Your task to perform on an android device: toggle show notifications on the lock screen Image 0: 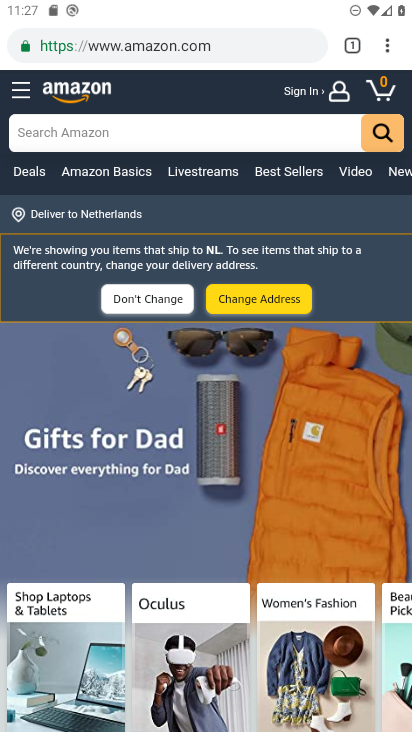
Step 0: press home button
Your task to perform on an android device: toggle show notifications on the lock screen Image 1: 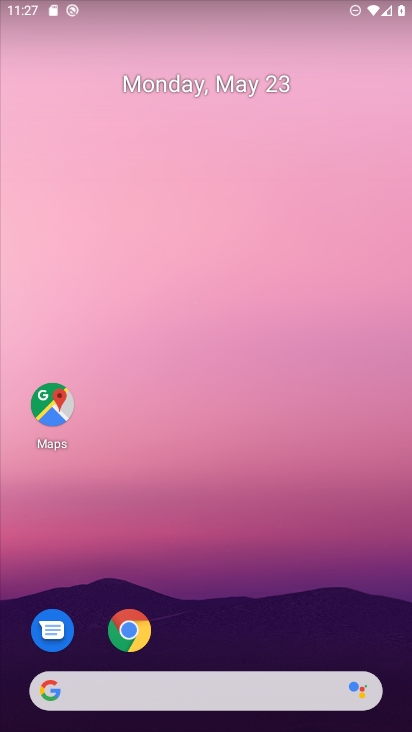
Step 1: drag from (172, 647) to (281, 113)
Your task to perform on an android device: toggle show notifications on the lock screen Image 2: 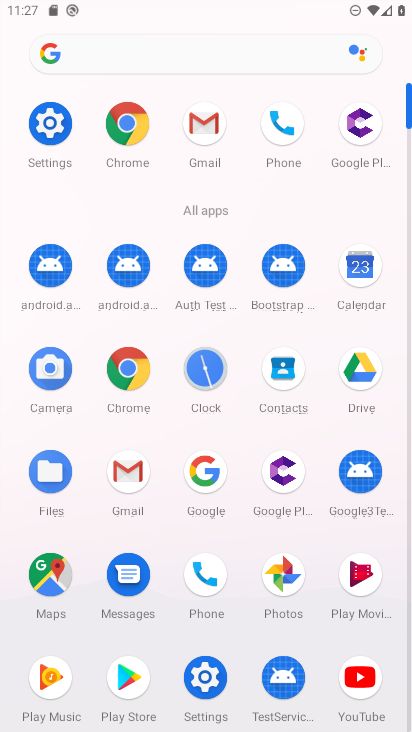
Step 2: click (50, 121)
Your task to perform on an android device: toggle show notifications on the lock screen Image 3: 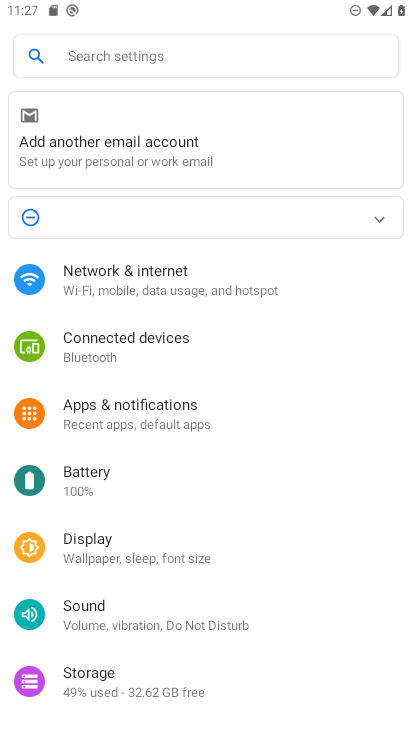
Step 3: click (133, 426)
Your task to perform on an android device: toggle show notifications on the lock screen Image 4: 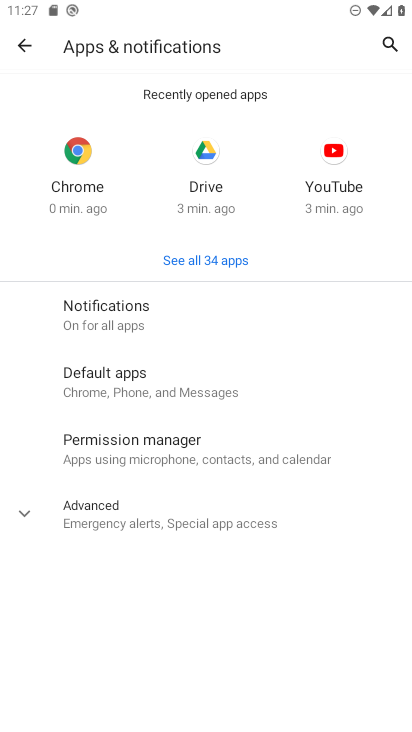
Step 4: click (120, 308)
Your task to perform on an android device: toggle show notifications on the lock screen Image 5: 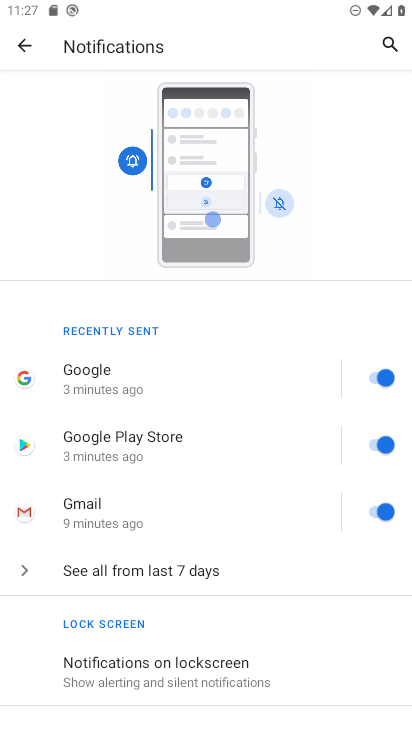
Step 5: click (133, 667)
Your task to perform on an android device: toggle show notifications on the lock screen Image 6: 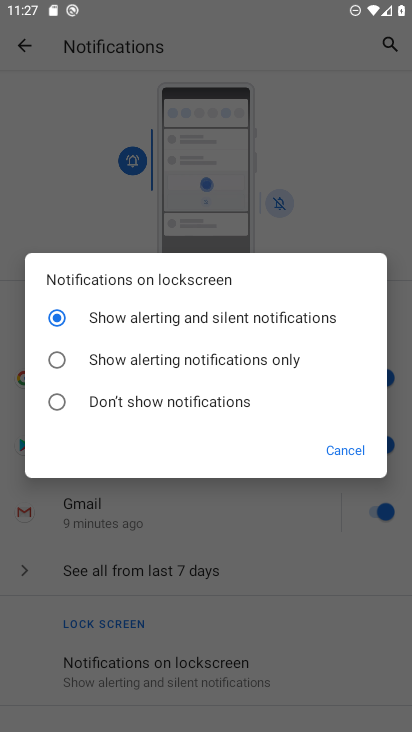
Step 6: task complete